Your task to perform on an android device: turn on showing notifications on the lock screen Image 0: 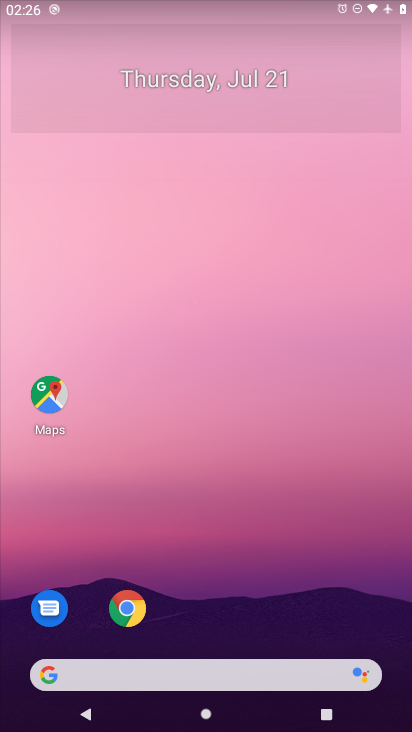
Step 0: press home button
Your task to perform on an android device: turn on showing notifications on the lock screen Image 1: 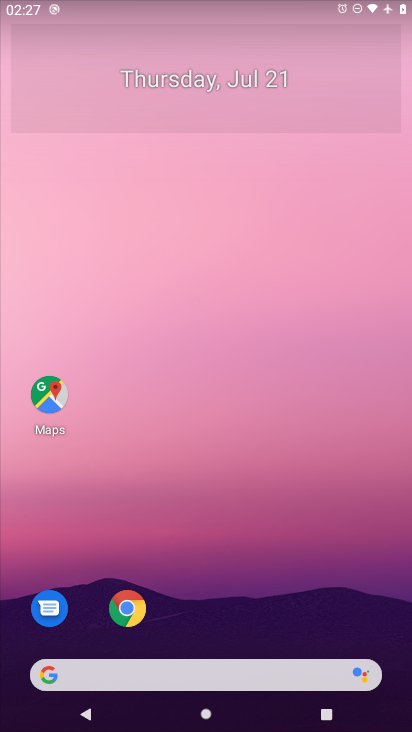
Step 1: drag from (265, 635) to (314, 34)
Your task to perform on an android device: turn on showing notifications on the lock screen Image 2: 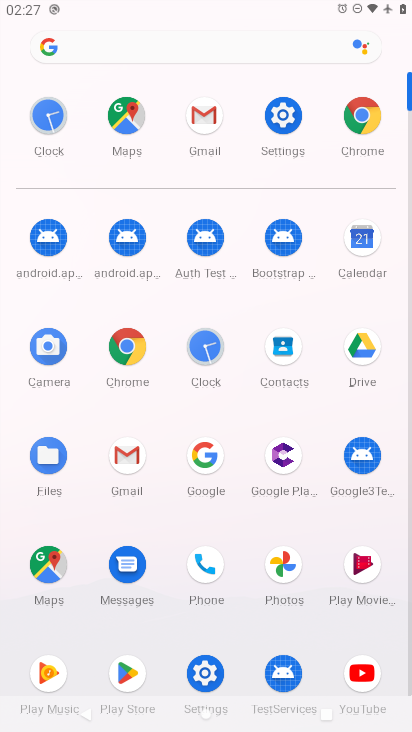
Step 2: click (273, 109)
Your task to perform on an android device: turn on showing notifications on the lock screen Image 3: 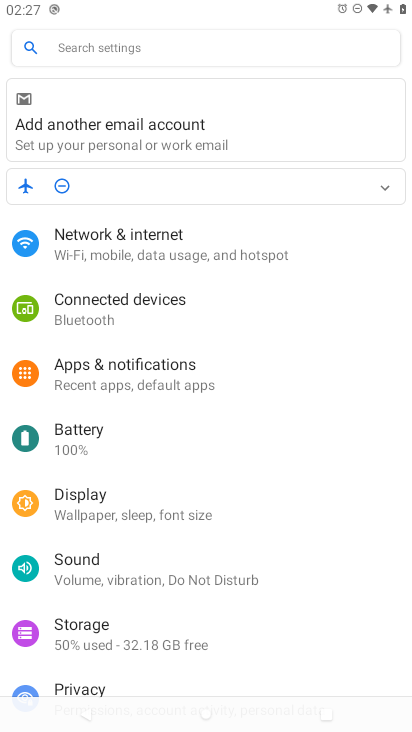
Step 3: click (102, 371)
Your task to perform on an android device: turn on showing notifications on the lock screen Image 4: 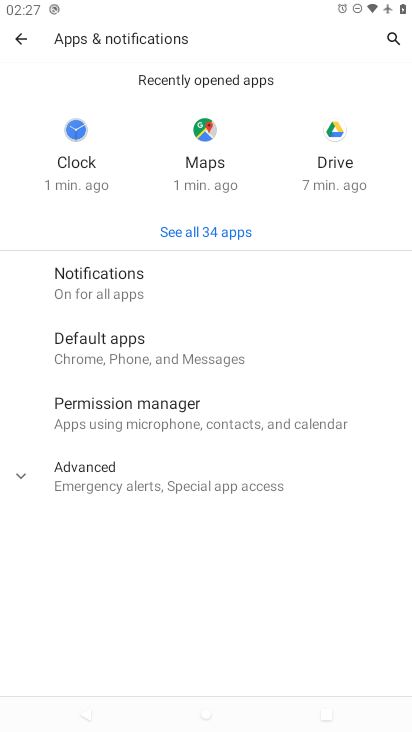
Step 4: click (103, 286)
Your task to perform on an android device: turn on showing notifications on the lock screen Image 5: 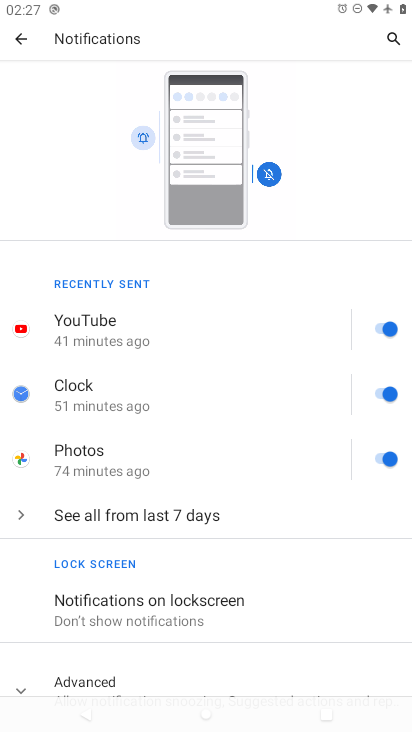
Step 5: click (133, 615)
Your task to perform on an android device: turn on showing notifications on the lock screen Image 6: 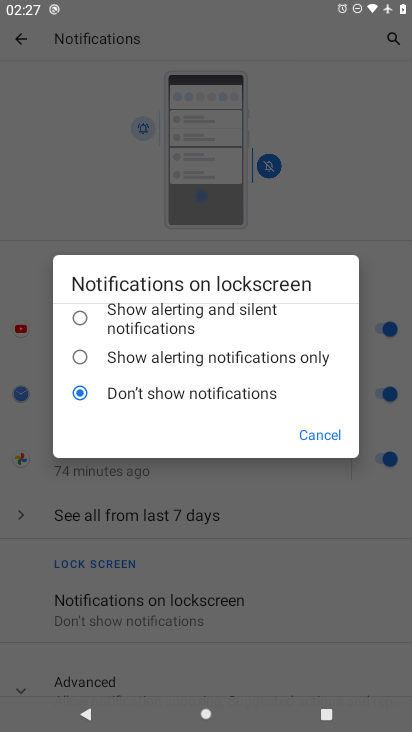
Step 6: click (78, 312)
Your task to perform on an android device: turn on showing notifications on the lock screen Image 7: 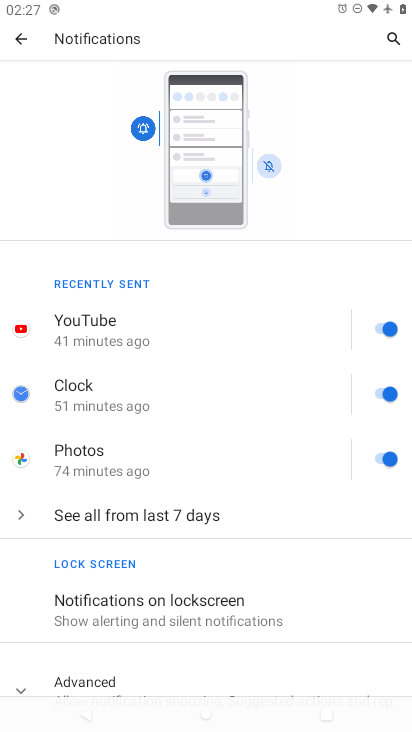
Step 7: task complete